Your task to perform on an android device: turn off javascript in the chrome app Image 0: 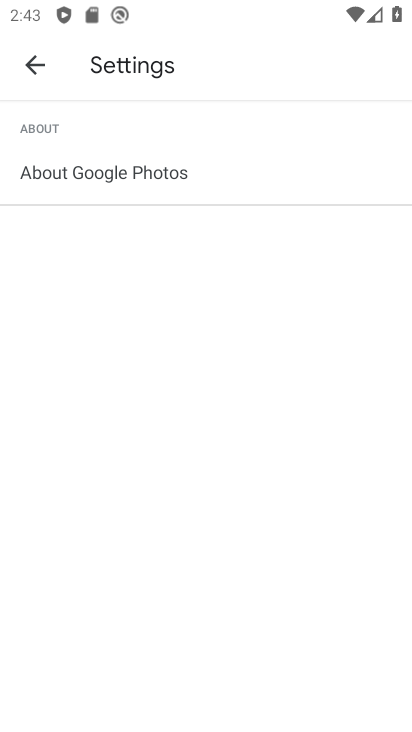
Step 0: click (220, 430)
Your task to perform on an android device: turn off javascript in the chrome app Image 1: 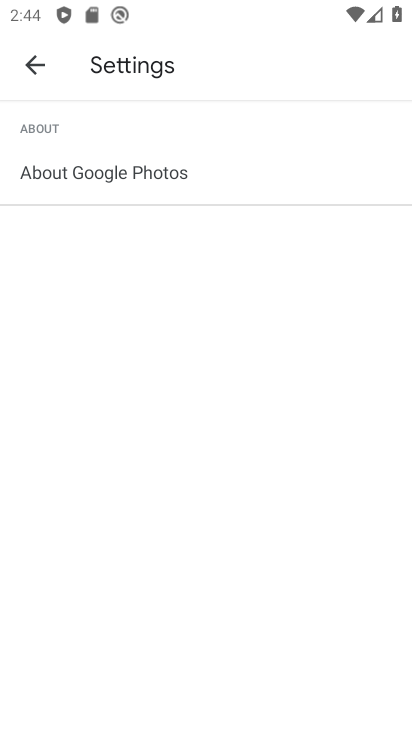
Step 1: press home button
Your task to perform on an android device: turn off javascript in the chrome app Image 2: 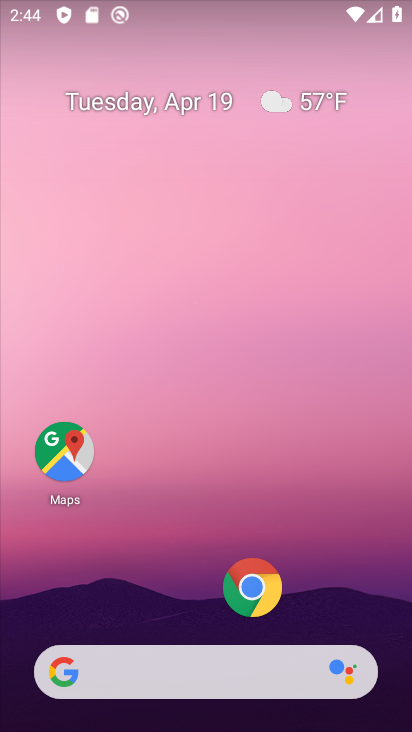
Step 2: drag from (167, 568) to (272, 112)
Your task to perform on an android device: turn off javascript in the chrome app Image 3: 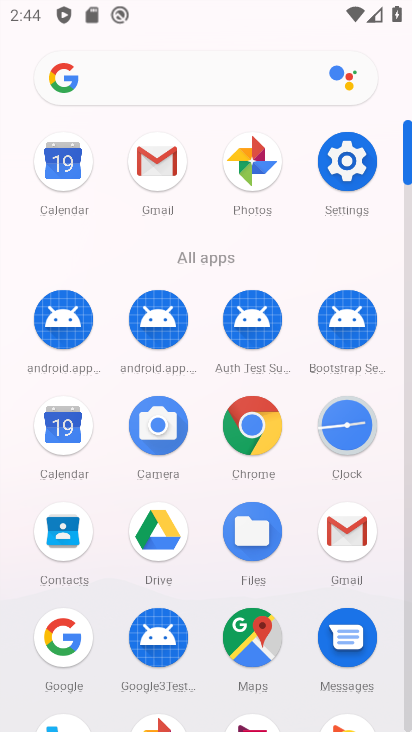
Step 3: click (259, 424)
Your task to perform on an android device: turn off javascript in the chrome app Image 4: 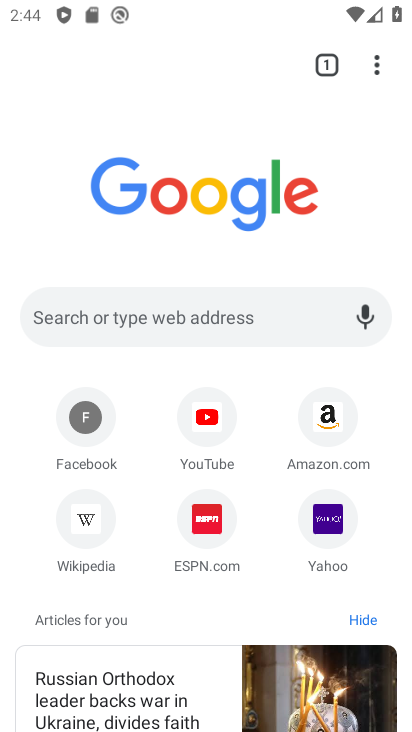
Step 4: click (376, 70)
Your task to perform on an android device: turn off javascript in the chrome app Image 5: 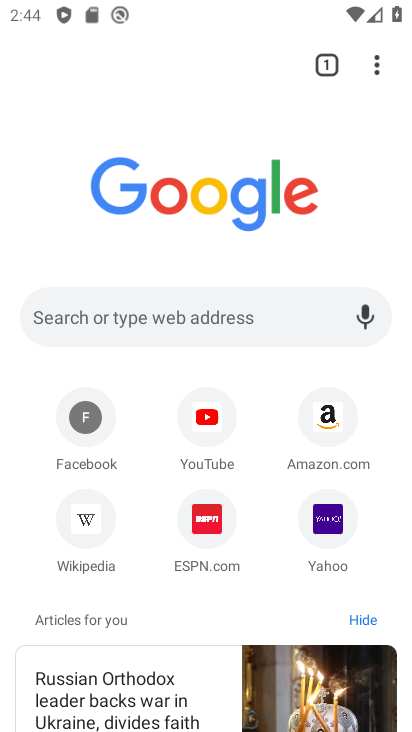
Step 5: click (380, 72)
Your task to perform on an android device: turn off javascript in the chrome app Image 6: 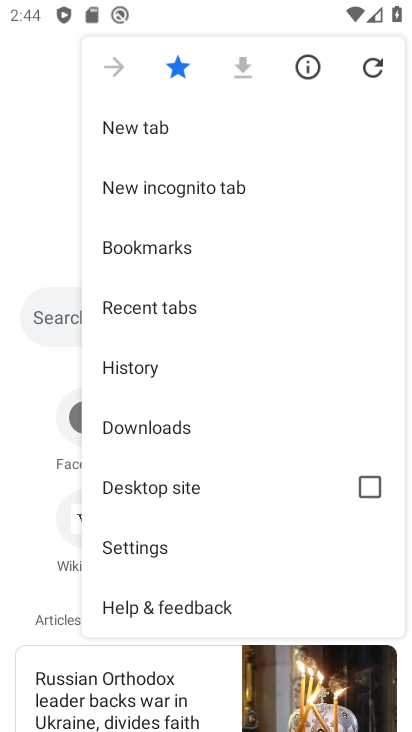
Step 6: click (143, 549)
Your task to perform on an android device: turn off javascript in the chrome app Image 7: 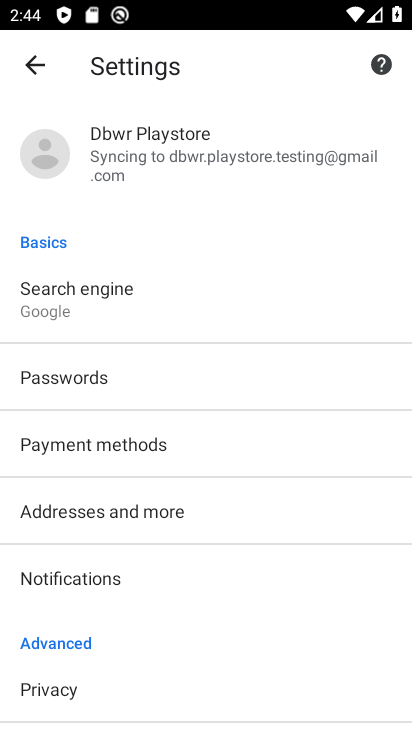
Step 7: drag from (127, 567) to (195, 150)
Your task to perform on an android device: turn off javascript in the chrome app Image 8: 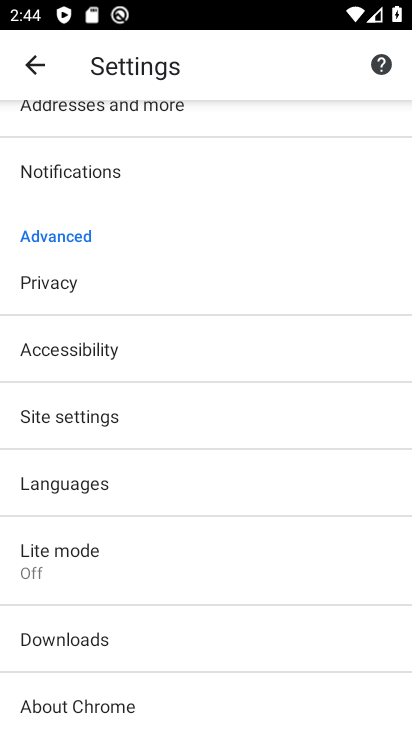
Step 8: click (103, 408)
Your task to perform on an android device: turn off javascript in the chrome app Image 9: 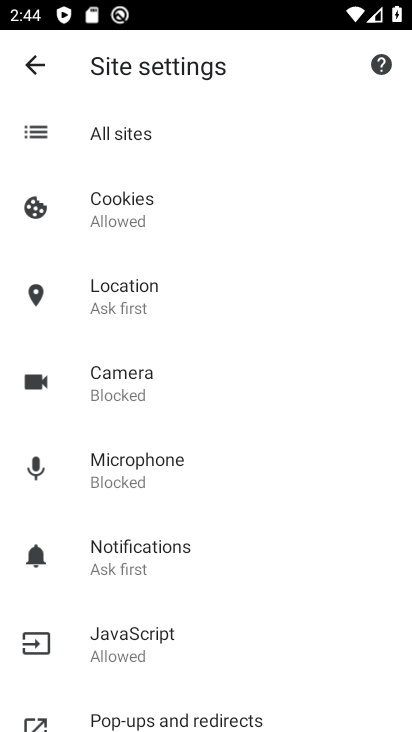
Step 9: drag from (120, 573) to (161, 332)
Your task to perform on an android device: turn off javascript in the chrome app Image 10: 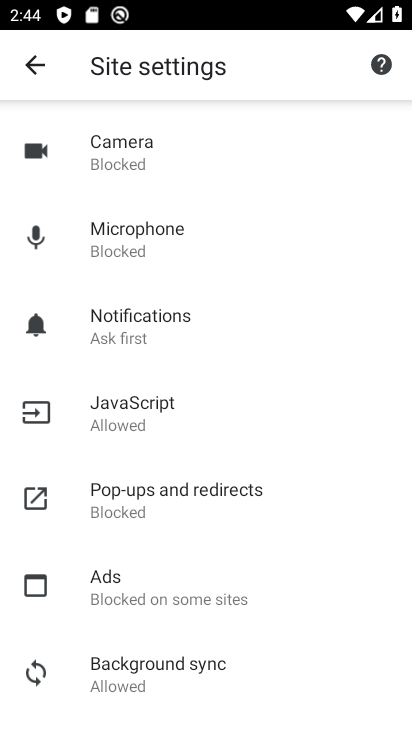
Step 10: click (116, 420)
Your task to perform on an android device: turn off javascript in the chrome app Image 11: 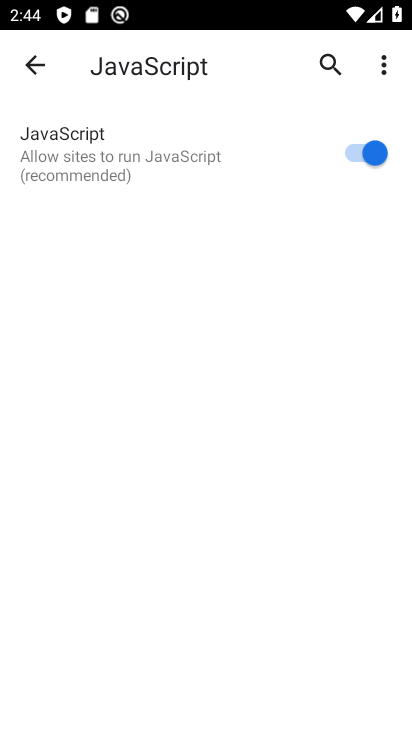
Step 11: click (352, 154)
Your task to perform on an android device: turn off javascript in the chrome app Image 12: 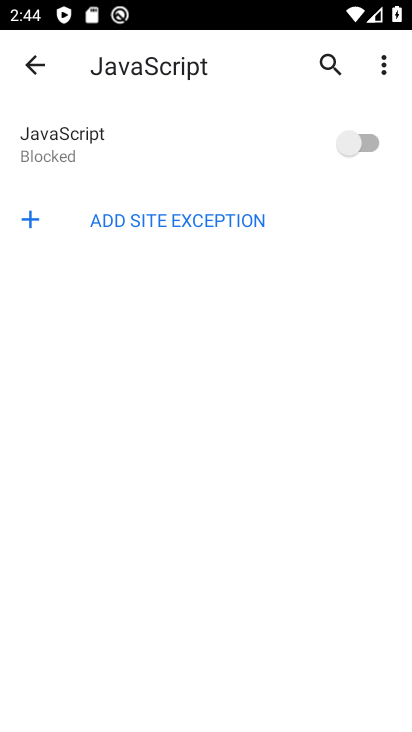
Step 12: task complete